Your task to perform on an android device: Open Chrome and go to the settings page Image 0: 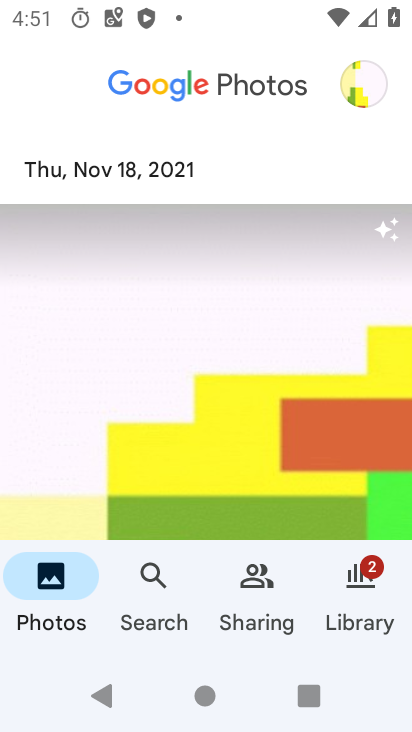
Step 0: press home button
Your task to perform on an android device: Open Chrome and go to the settings page Image 1: 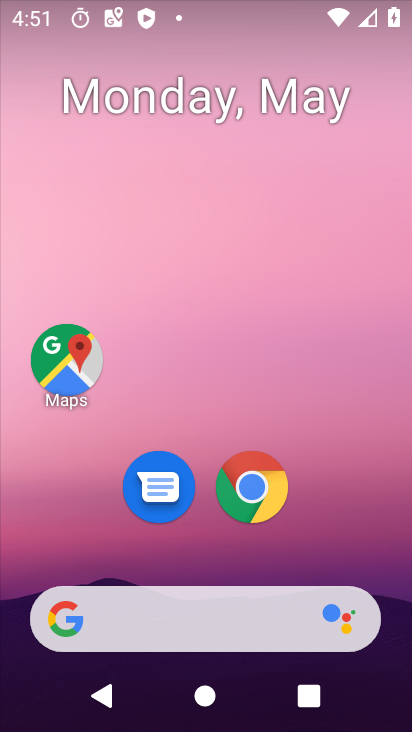
Step 1: drag from (188, 592) to (188, 189)
Your task to perform on an android device: Open Chrome and go to the settings page Image 2: 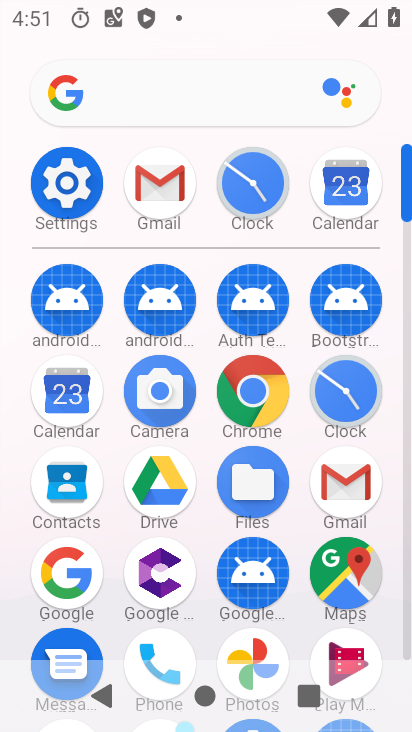
Step 2: click (265, 391)
Your task to perform on an android device: Open Chrome and go to the settings page Image 3: 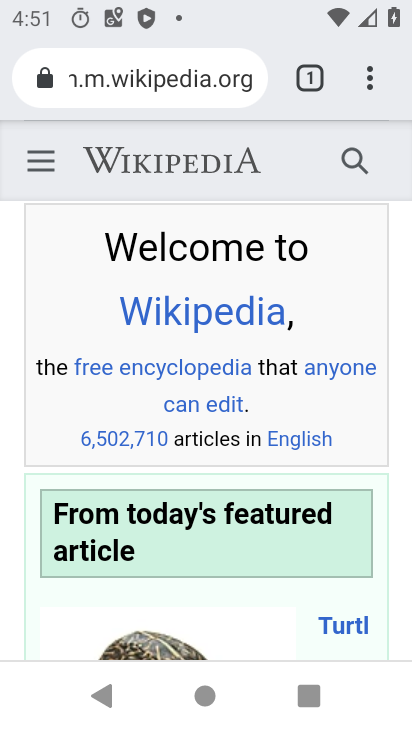
Step 3: click (372, 78)
Your task to perform on an android device: Open Chrome and go to the settings page Image 4: 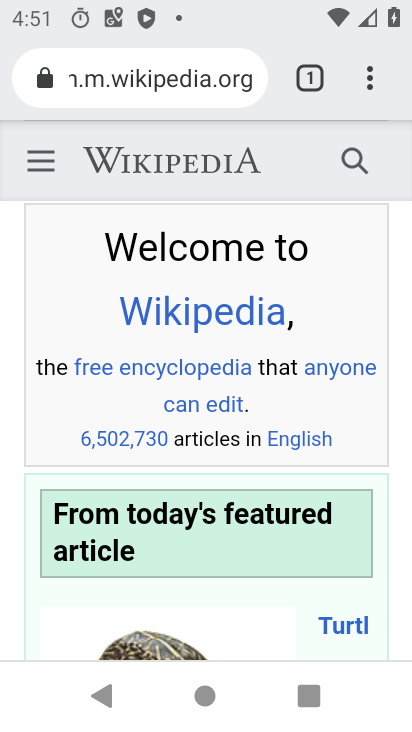
Step 4: click (372, 78)
Your task to perform on an android device: Open Chrome and go to the settings page Image 5: 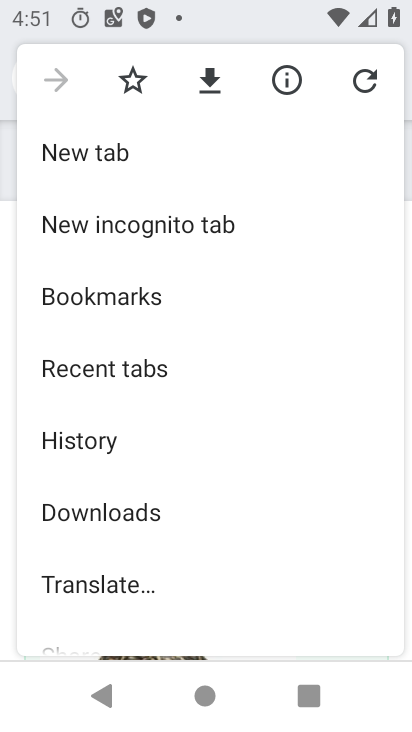
Step 5: drag from (115, 605) to (115, 159)
Your task to perform on an android device: Open Chrome and go to the settings page Image 6: 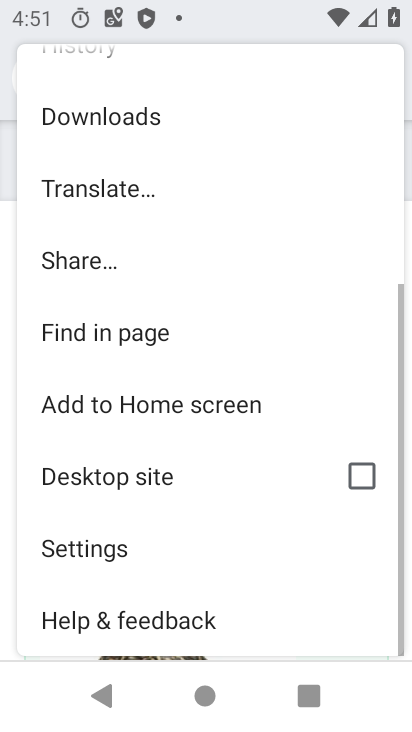
Step 6: click (105, 553)
Your task to perform on an android device: Open Chrome and go to the settings page Image 7: 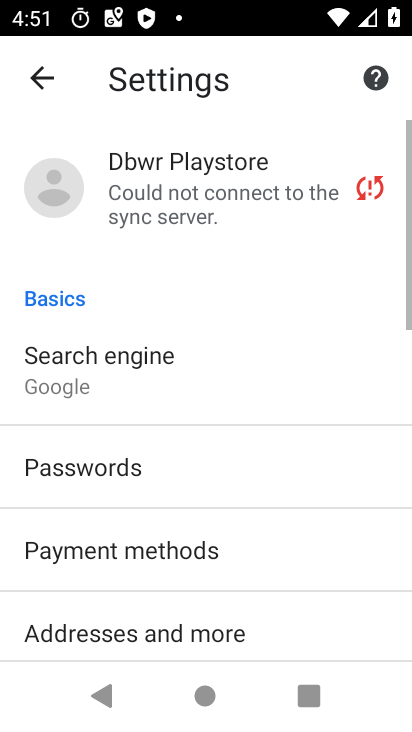
Step 7: task complete